Your task to perform on an android device: Search for bose soundlink mini on bestbuy, select the first entry, and add it to the cart. Image 0: 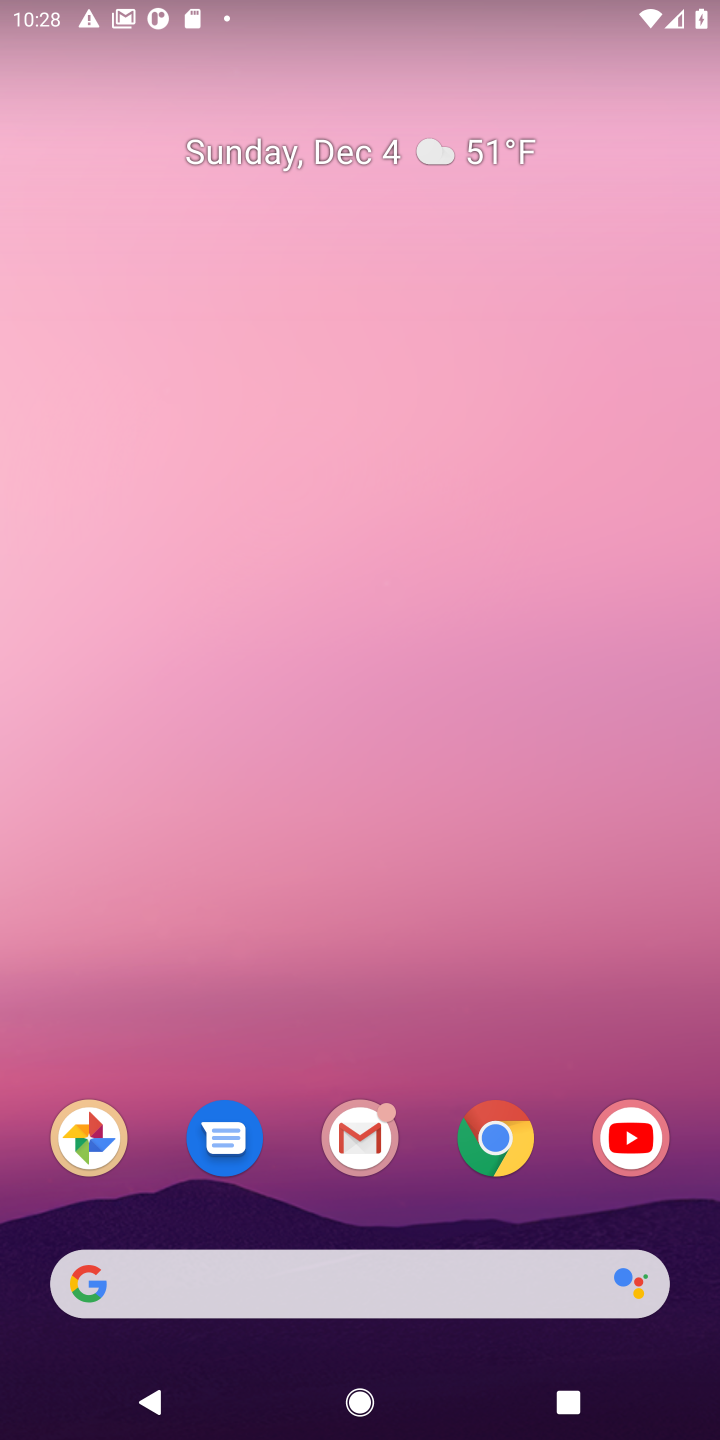
Step 0: click (512, 1130)
Your task to perform on an android device: Search for bose soundlink mini on bestbuy, select the first entry, and add it to the cart. Image 1: 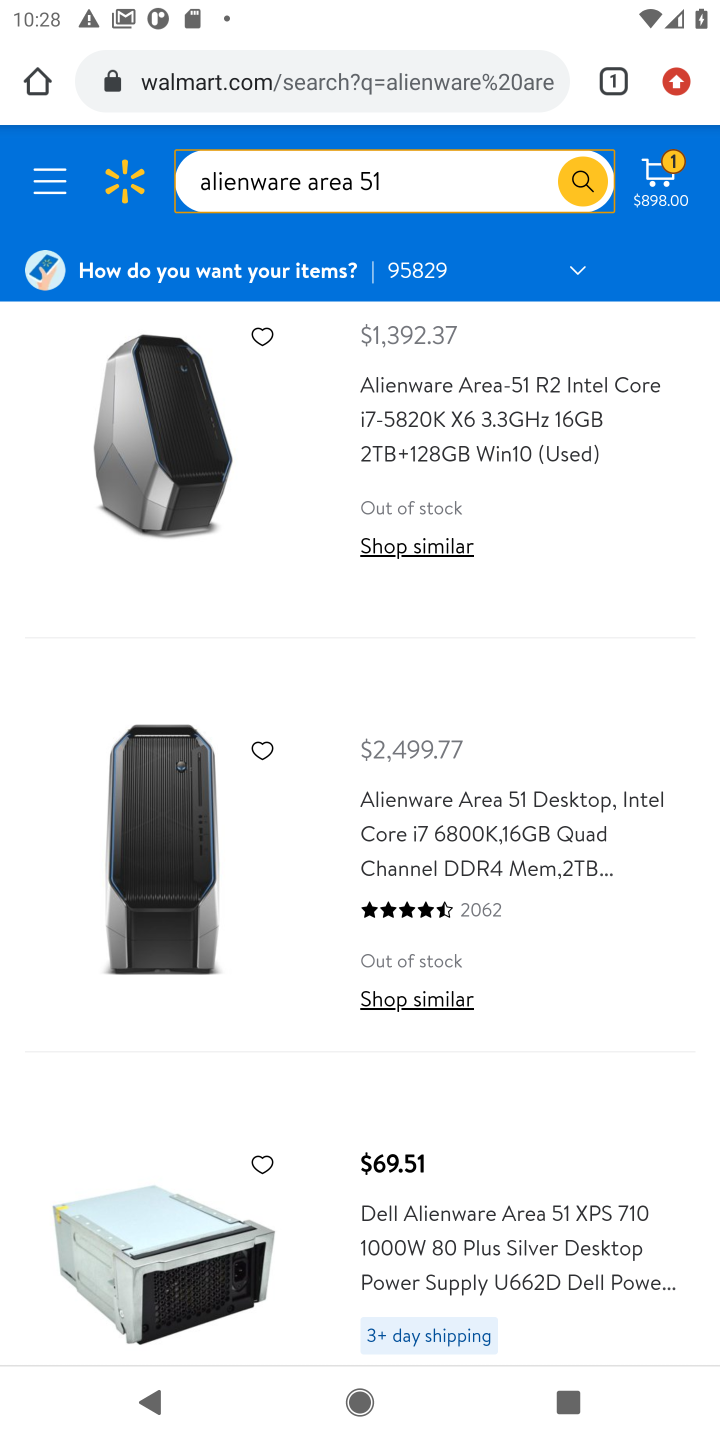
Step 1: click (445, 75)
Your task to perform on an android device: Search for bose soundlink mini on bestbuy, select the first entry, and add it to the cart. Image 2: 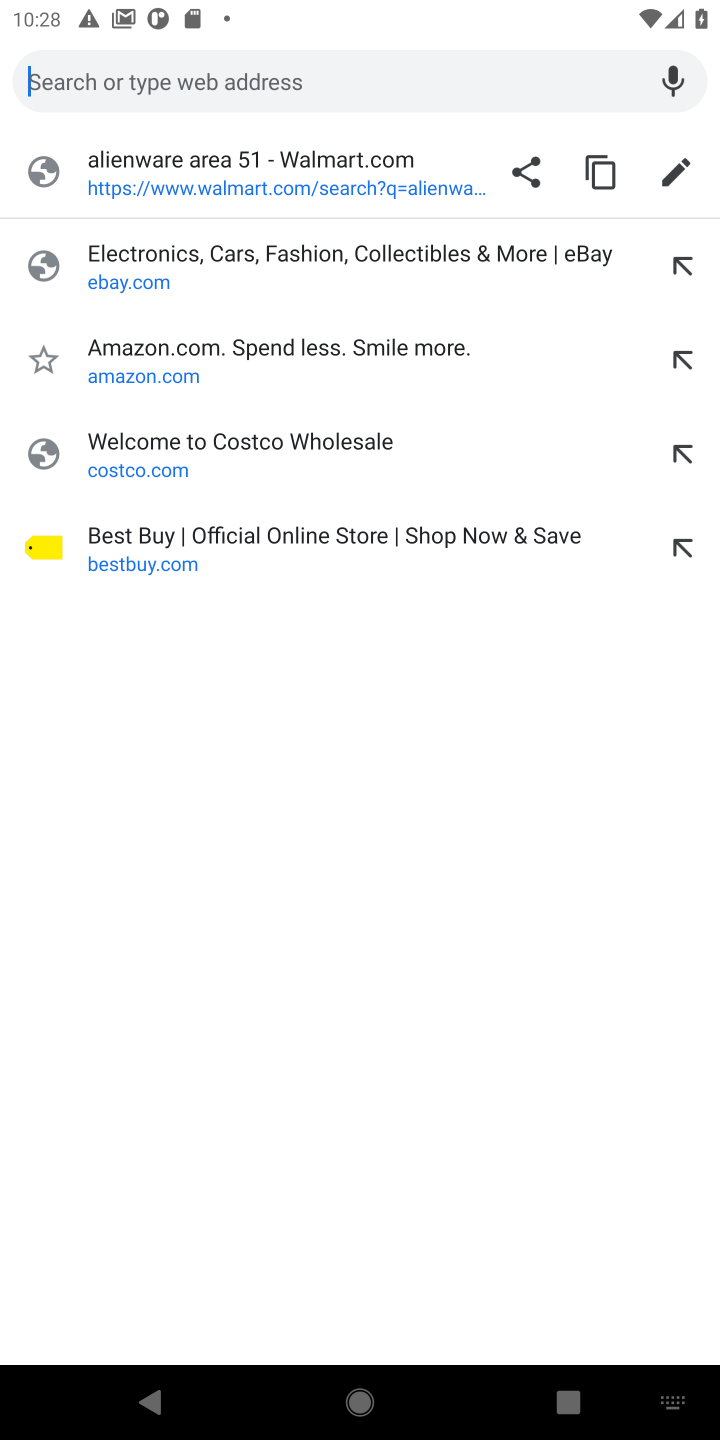
Step 2: click (284, 522)
Your task to perform on an android device: Search for bose soundlink mini on bestbuy, select the first entry, and add it to the cart. Image 3: 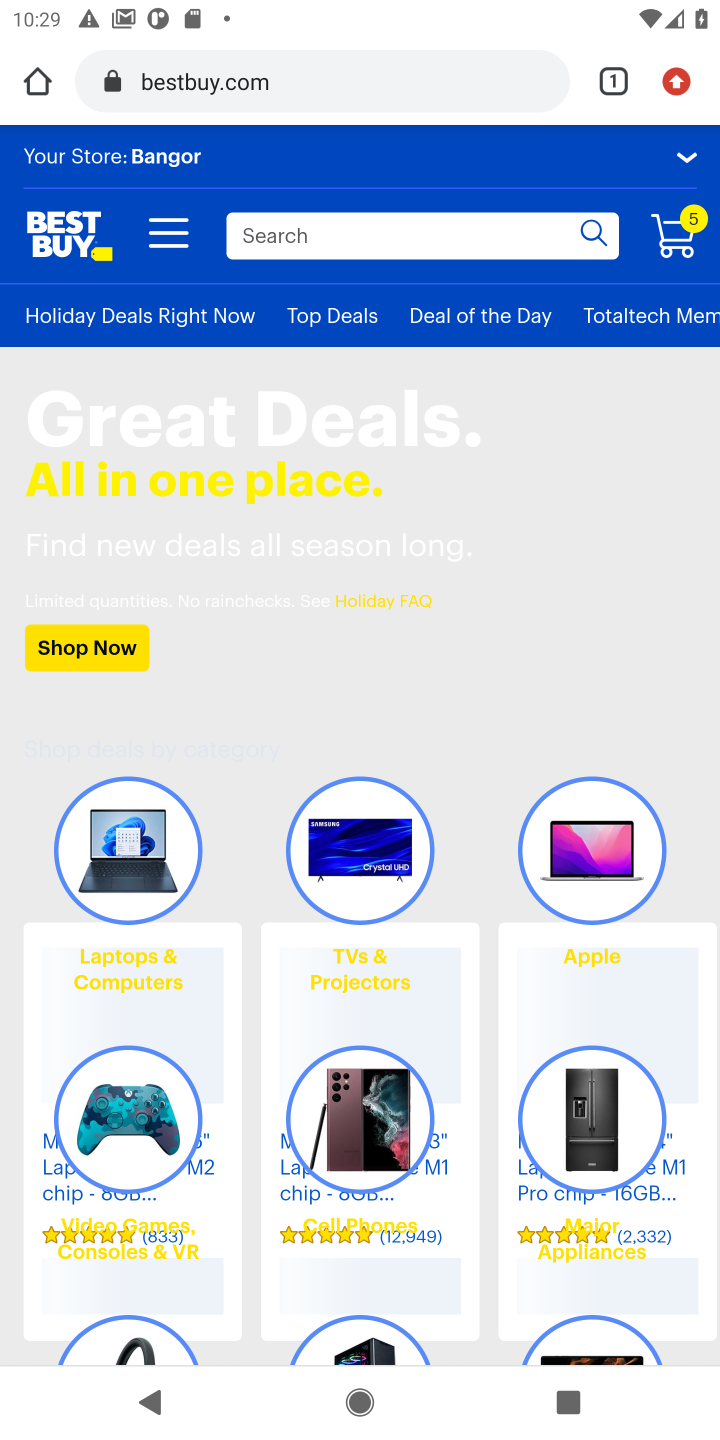
Step 3: click (486, 237)
Your task to perform on an android device: Search for bose soundlink mini on bestbuy, select the first entry, and add it to the cart. Image 4: 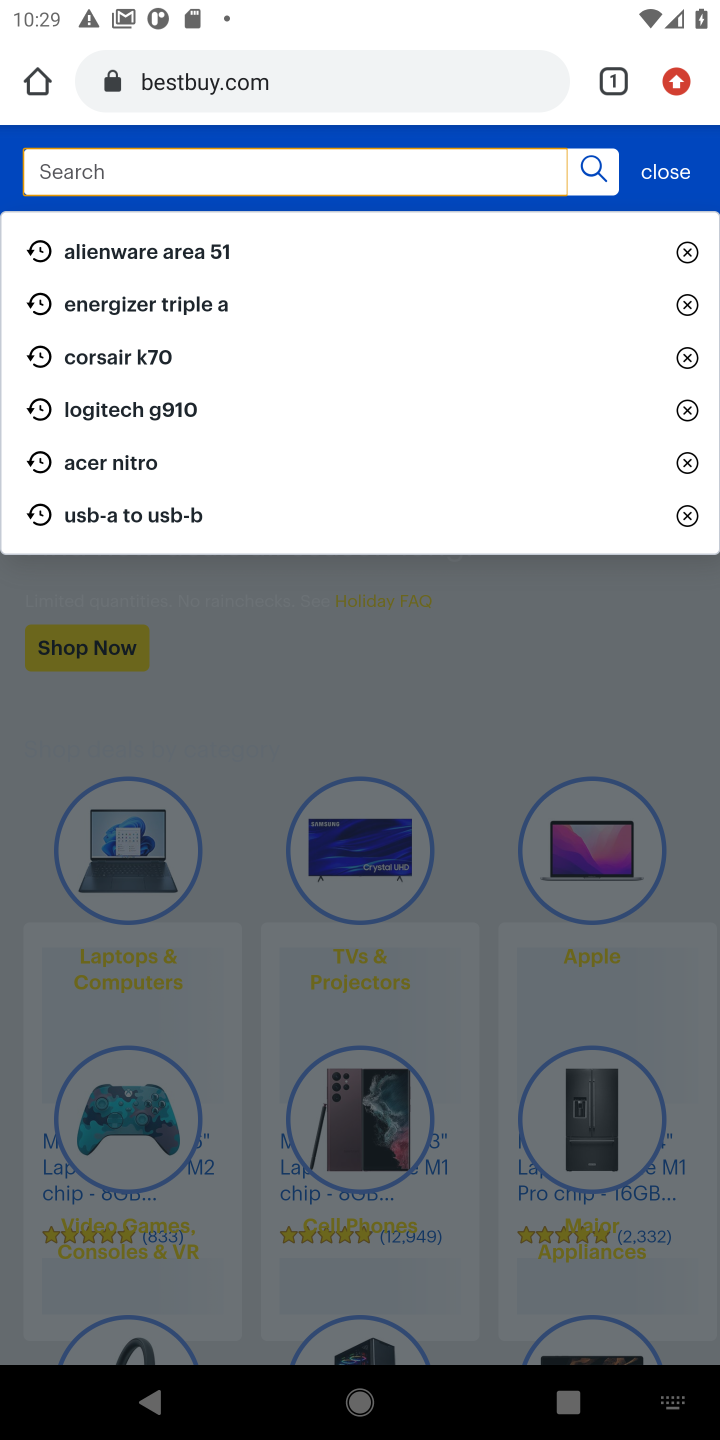
Step 4: press enter
Your task to perform on an android device: Search for bose soundlink mini on bestbuy, select the first entry, and add it to the cart. Image 5: 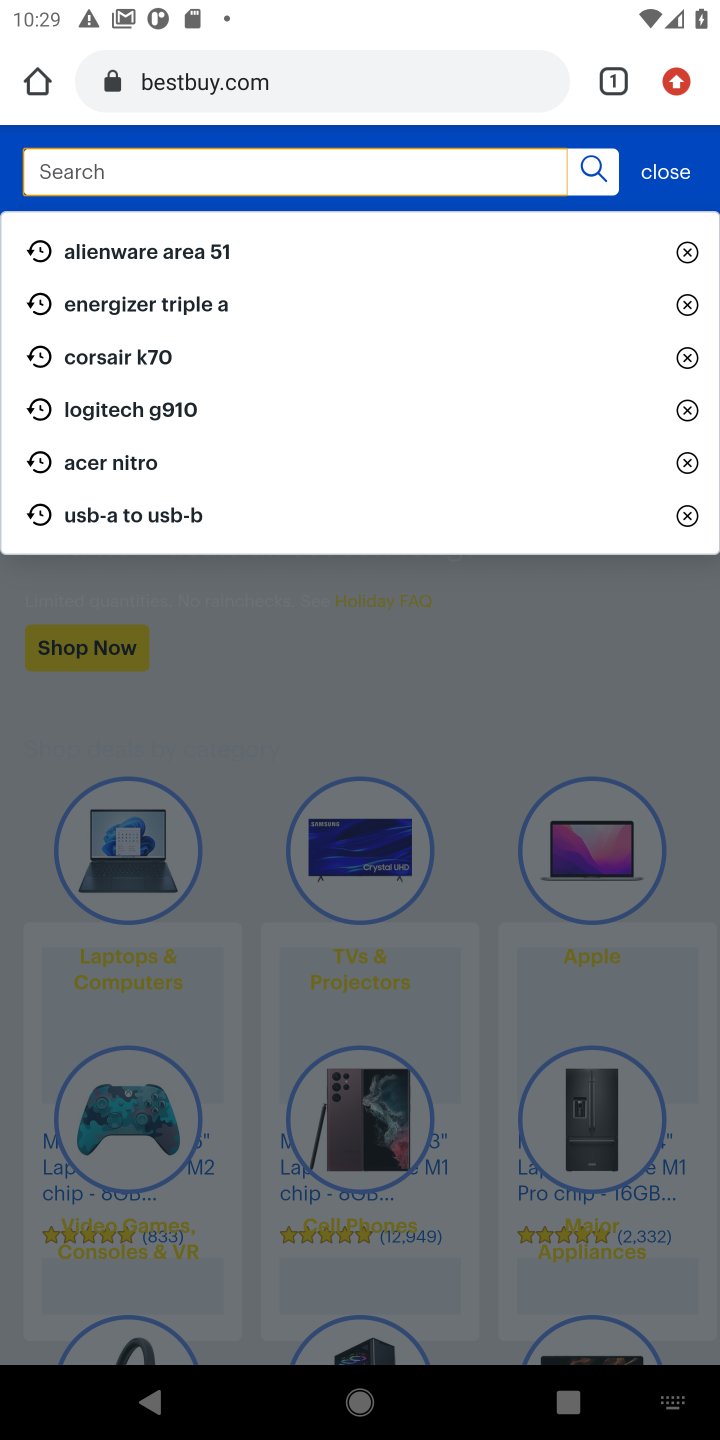
Step 5: type "bose soundlink mini"
Your task to perform on an android device: Search for bose soundlink mini on bestbuy, select the first entry, and add it to the cart. Image 6: 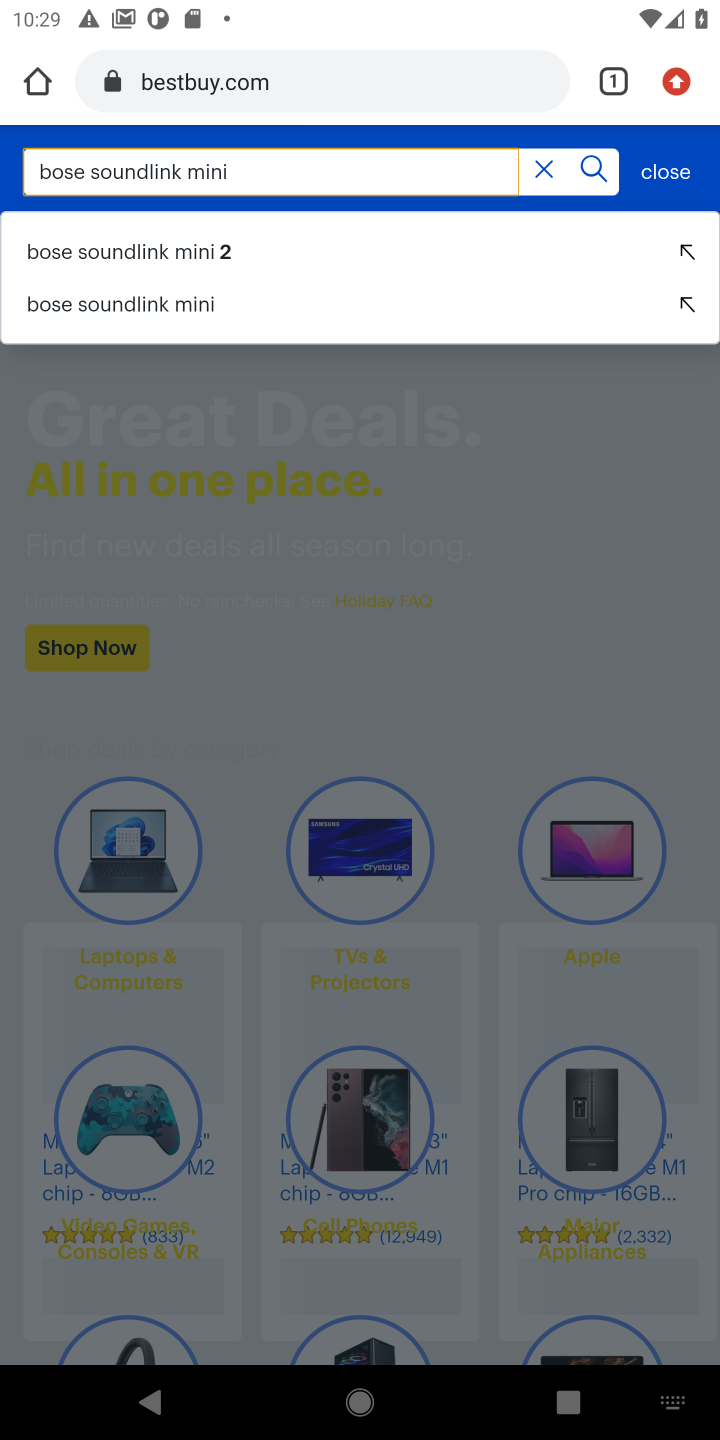
Step 6: click (185, 305)
Your task to perform on an android device: Search for bose soundlink mini on bestbuy, select the first entry, and add it to the cart. Image 7: 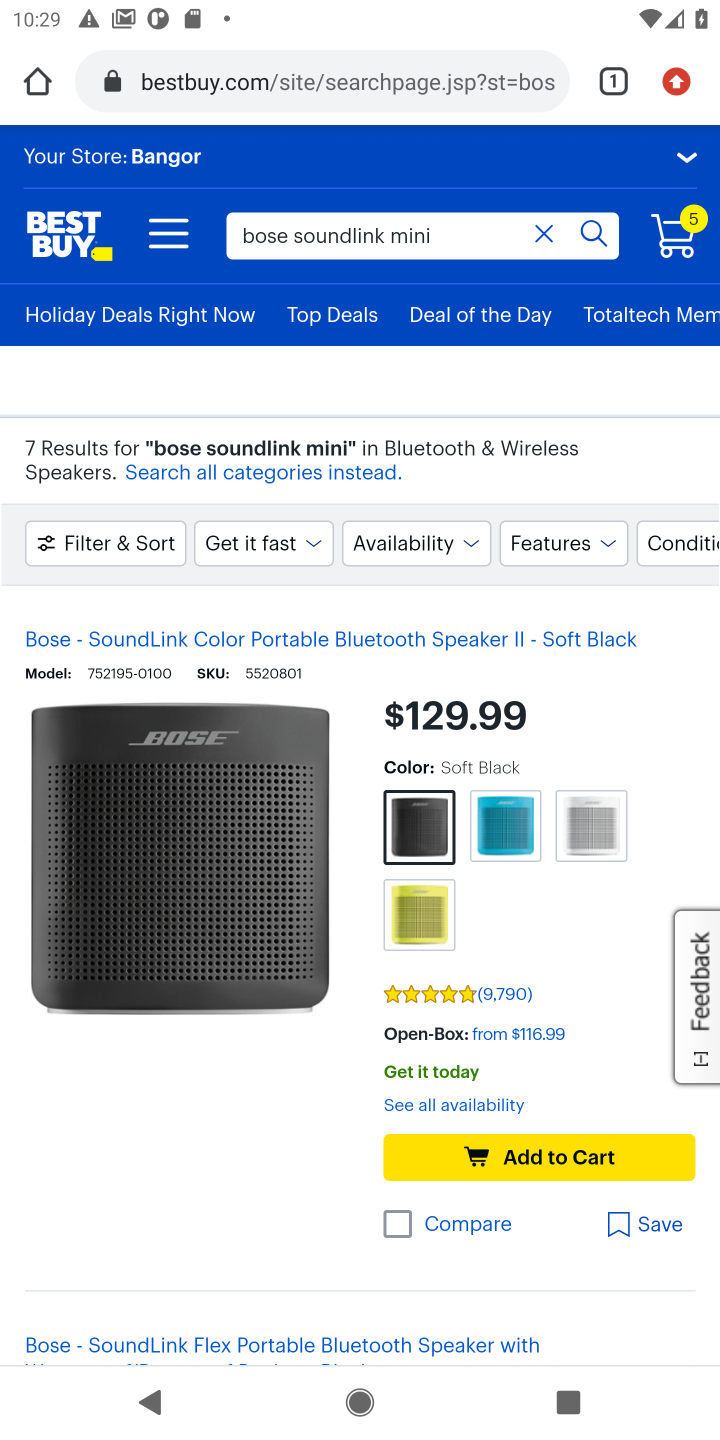
Step 7: task complete